Your task to perform on an android device: turn off priority inbox in the gmail app Image 0: 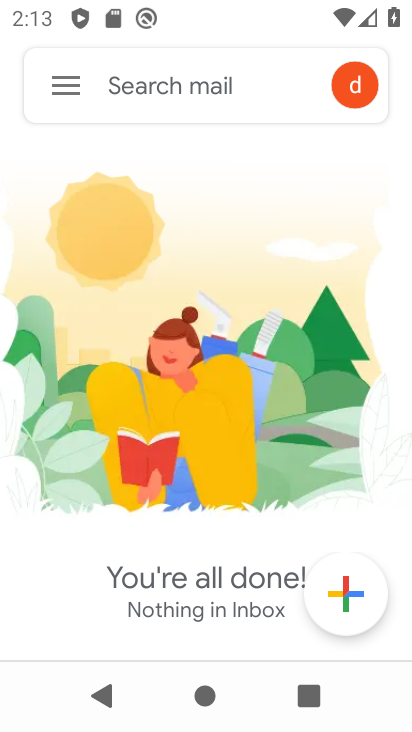
Step 0: press home button
Your task to perform on an android device: turn off priority inbox in the gmail app Image 1: 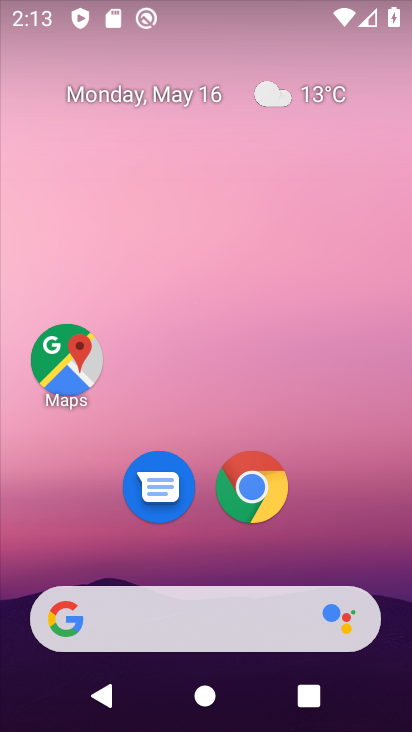
Step 1: drag from (245, 386) to (108, 154)
Your task to perform on an android device: turn off priority inbox in the gmail app Image 2: 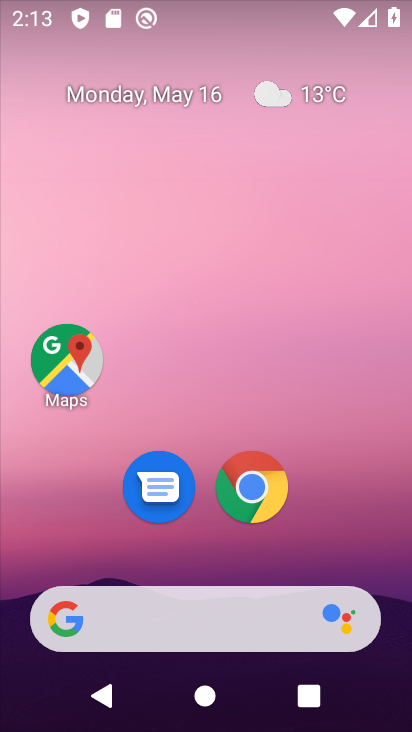
Step 2: drag from (301, 499) to (127, 105)
Your task to perform on an android device: turn off priority inbox in the gmail app Image 3: 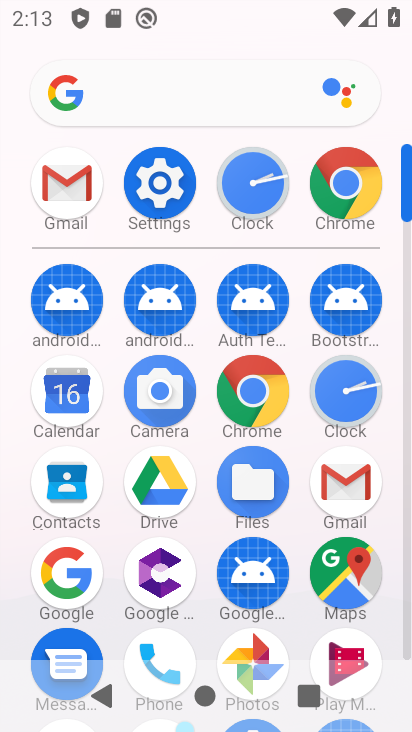
Step 3: click (54, 186)
Your task to perform on an android device: turn off priority inbox in the gmail app Image 4: 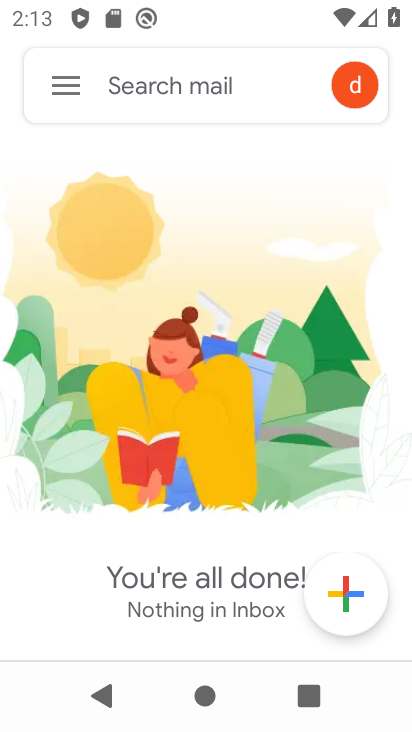
Step 4: click (68, 85)
Your task to perform on an android device: turn off priority inbox in the gmail app Image 5: 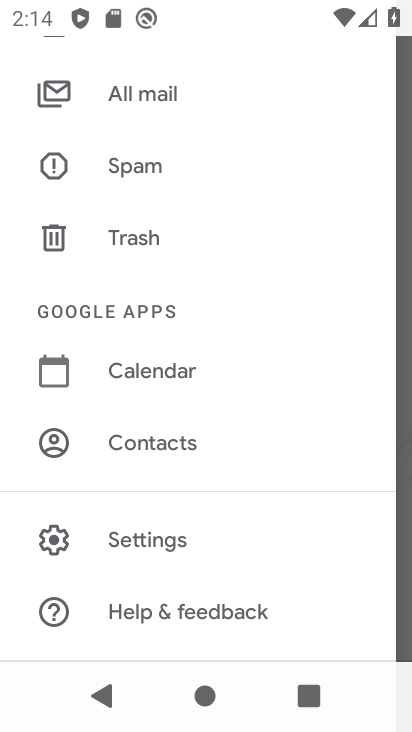
Step 5: click (129, 540)
Your task to perform on an android device: turn off priority inbox in the gmail app Image 6: 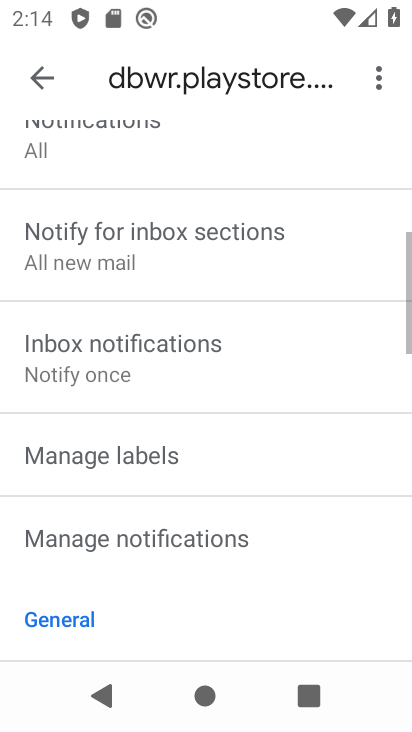
Step 6: click (95, 210)
Your task to perform on an android device: turn off priority inbox in the gmail app Image 7: 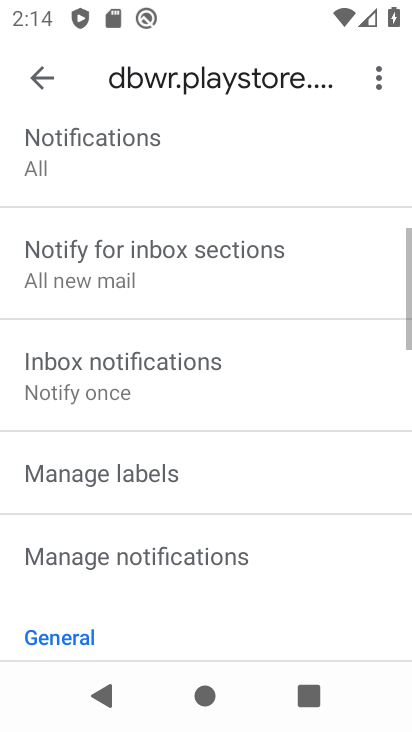
Step 7: drag from (81, 437) to (75, 610)
Your task to perform on an android device: turn off priority inbox in the gmail app Image 8: 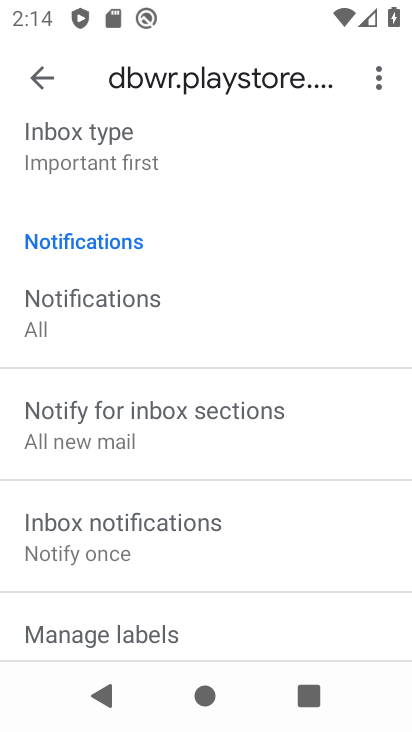
Step 8: drag from (113, 199) to (91, 442)
Your task to perform on an android device: turn off priority inbox in the gmail app Image 9: 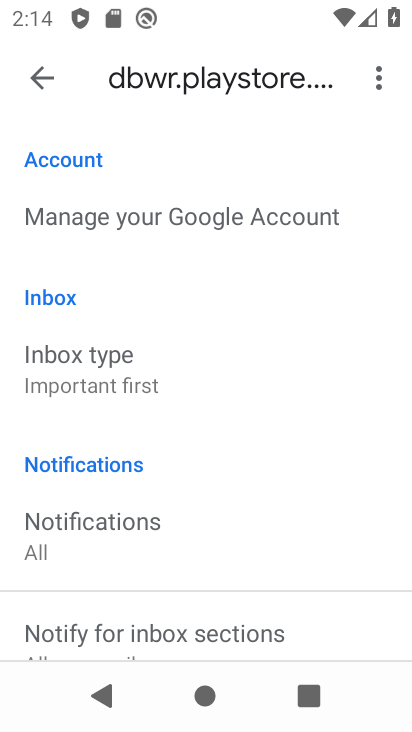
Step 9: click (65, 388)
Your task to perform on an android device: turn off priority inbox in the gmail app Image 10: 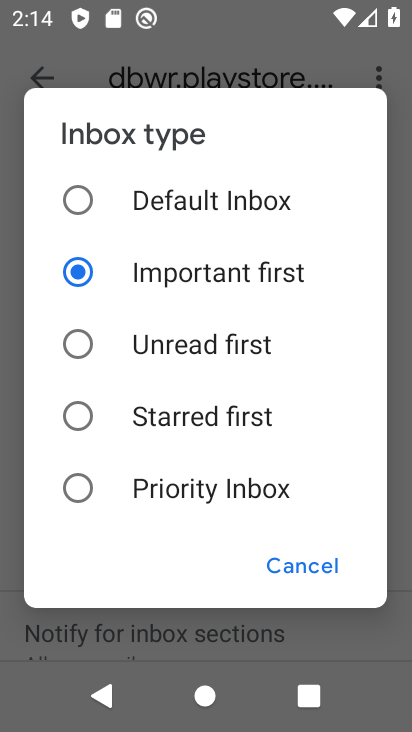
Step 10: task complete